Your task to perform on an android device: Go to battery settings Image 0: 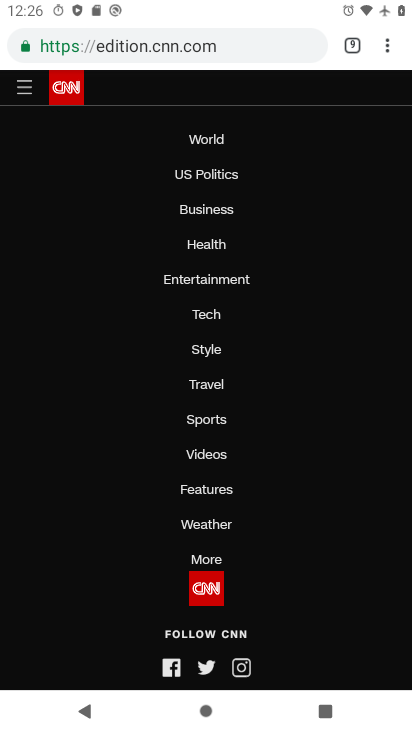
Step 0: press home button
Your task to perform on an android device: Go to battery settings Image 1: 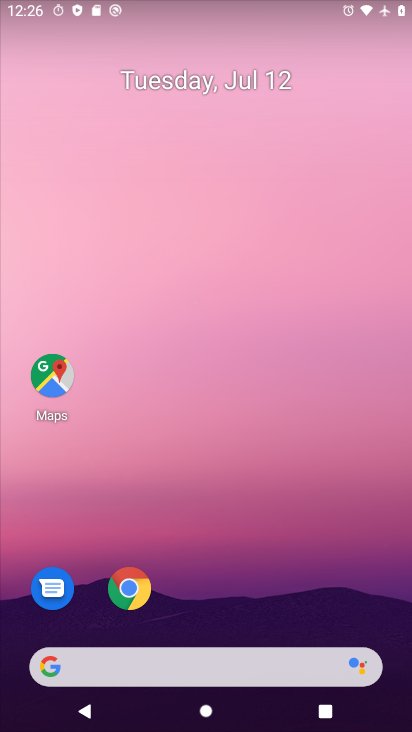
Step 1: drag from (236, 671) to (235, 148)
Your task to perform on an android device: Go to battery settings Image 2: 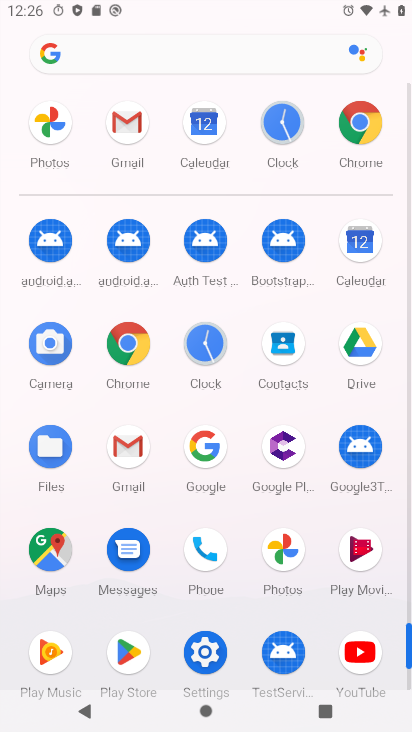
Step 2: click (201, 650)
Your task to perform on an android device: Go to battery settings Image 3: 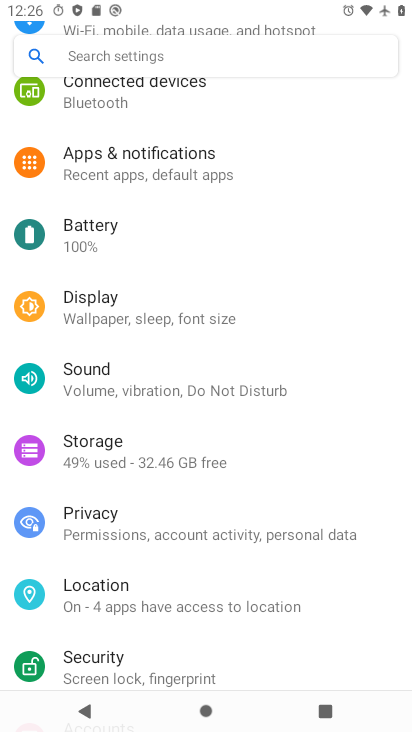
Step 3: click (94, 228)
Your task to perform on an android device: Go to battery settings Image 4: 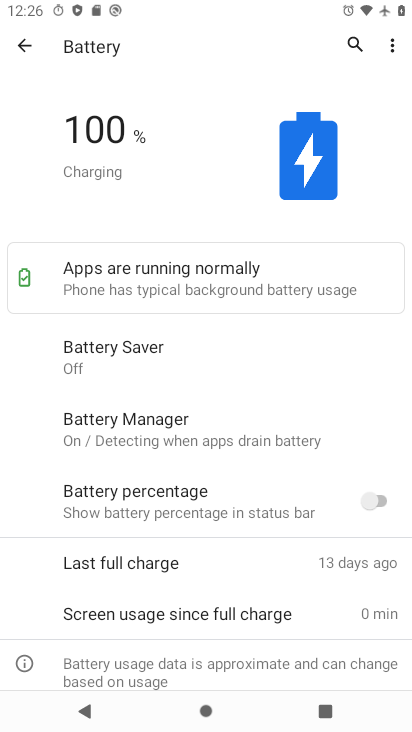
Step 4: task complete